Your task to perform on an android device: Open the Play Movies app and select the watchlist tab. Image 0: 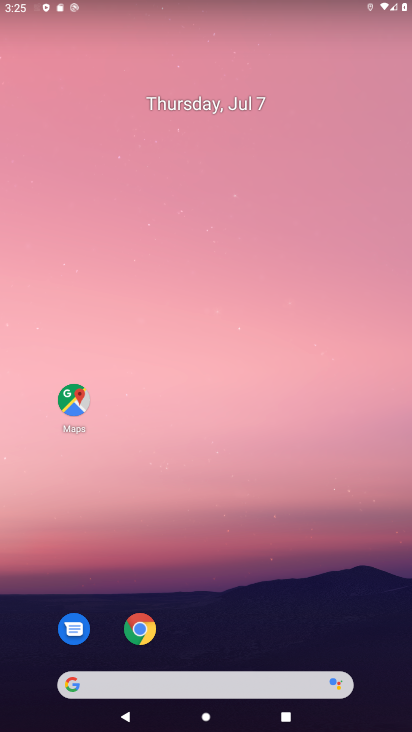
Step 0: press home button
Your task to perform on an android device: Open the Play Movies app and select the watchlist tab. Image 1: 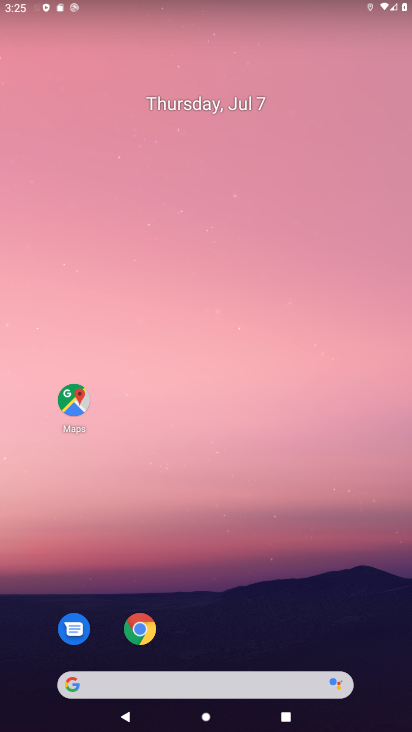
Step 1: drag from (245, 635) to (217, 165)
Your task to perform on an android device: Open the Play Movies app and select the watchlist tab. Image 2: 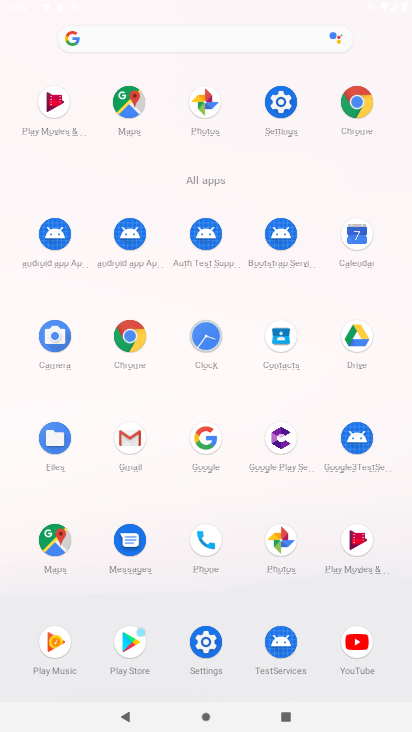
Step 2: click (356, 547)
Your task to perform on an android device: Open the Play Movies app and select the watchlist tab. Image 3: 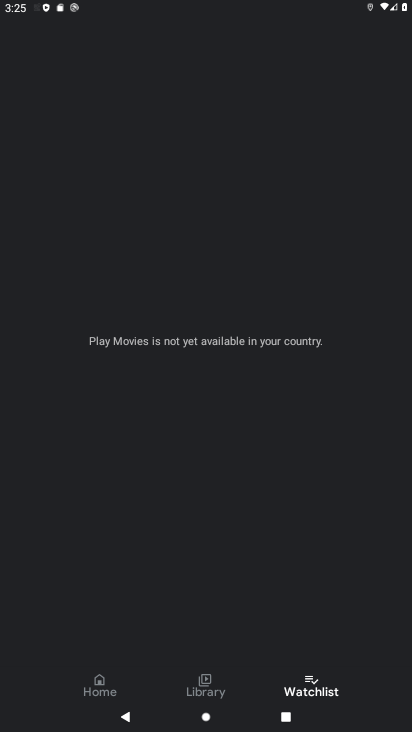
Step 3: click (304, 684)
Your task to perform on an android device: Open the Play Movies app and select the watchlist tab. Image 4: 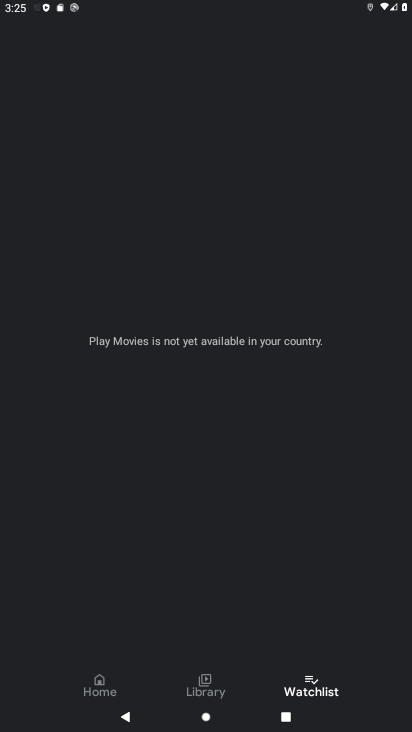
Step 4: task complete